Your task to perform on an android device: Go to CNN.com Image 0: 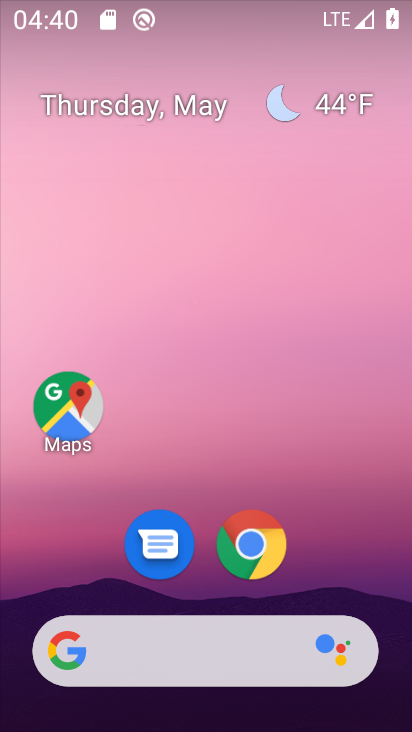
Step 0: click (239, 559)
Your task to perform on an android device: Go to CNN.com Image 1: 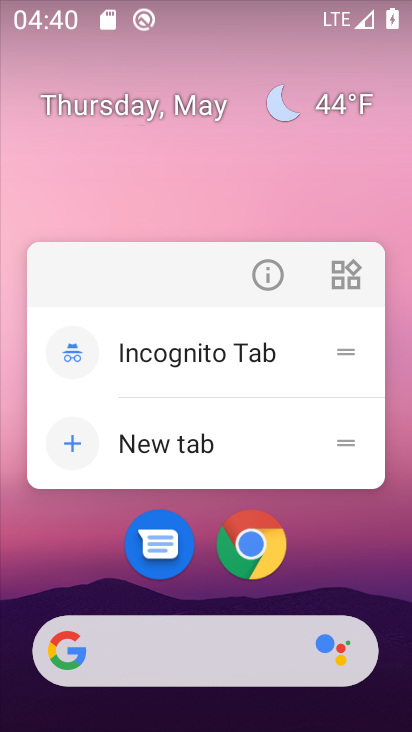
Step 1: click (240, 559)
Your task to perform on an android device: Go to CNN.com Image 2: 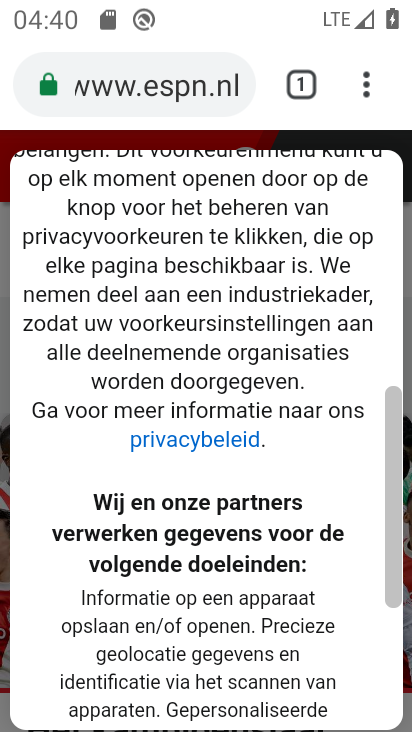
Step 2: click (140, 99)
Your task to perform on an android device: Go to CNN.com Image 3: 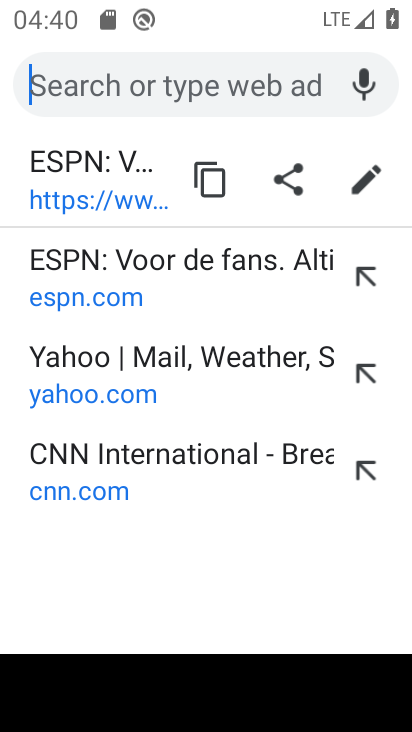
Step 3: type "CNN.com"
Your task to perform on an android device: Go to CNN.com Image 4: 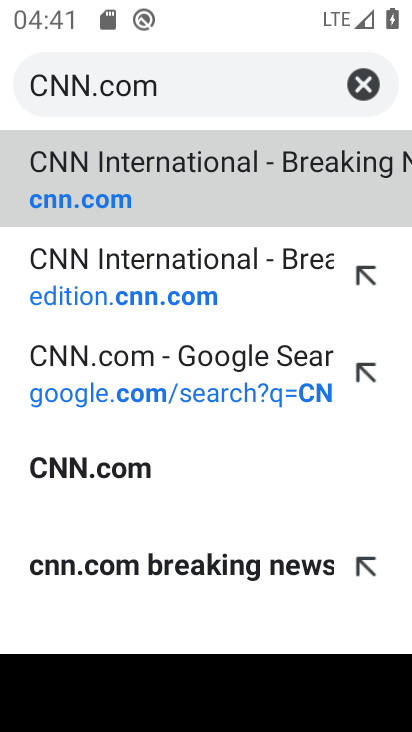
Step 4: click (102, 191)
Your task to perform on an android device: Go to CNN.com Image 5: 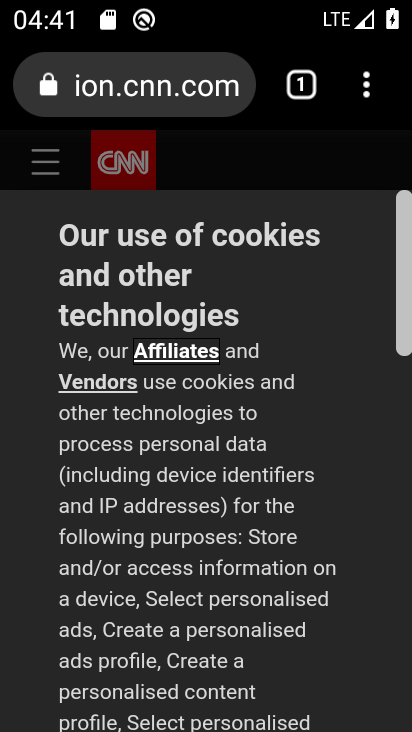
Step 5: task complete